Your task to perform on an android device: Open Google Maps and go to "Timeline" Image 0: 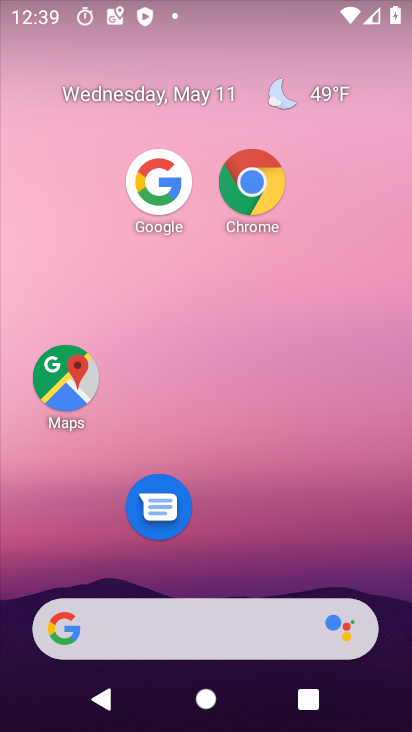
Step 0: click (63, 384)
Your task to perform on an android device: Open Google Maps and go to "Timeline" Image 1: 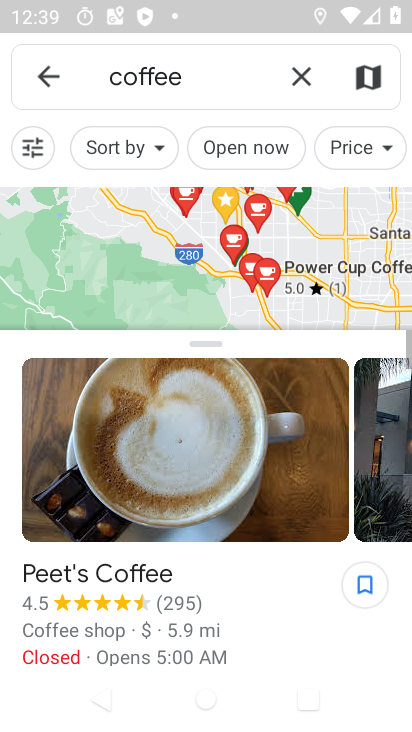
Step 1: press back button
Your task to perform on an android device: Open Google Maps and go to "Timeline" Image 2: 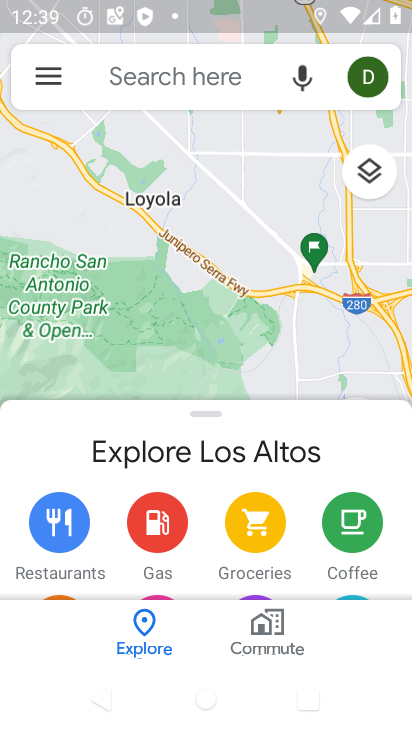
Step 2: click (49, 79)
Your task to perform on an android device: Open Google Maps and go to "Timeline" Image 3: 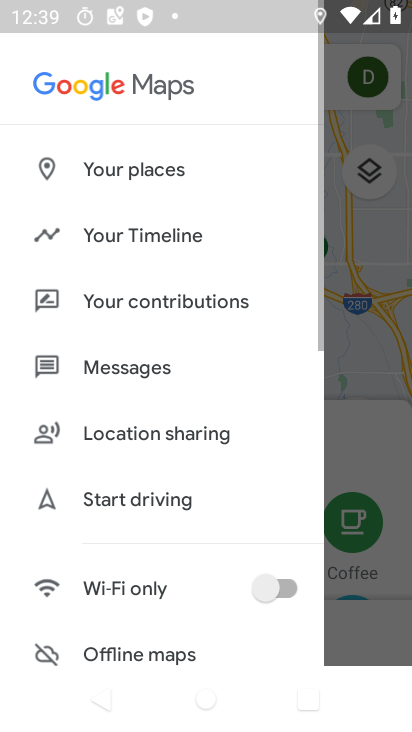
Step 3: click (132, 235)
Your task to perform on an android device: Open Google Maps and go to "Timeline" Image 4: 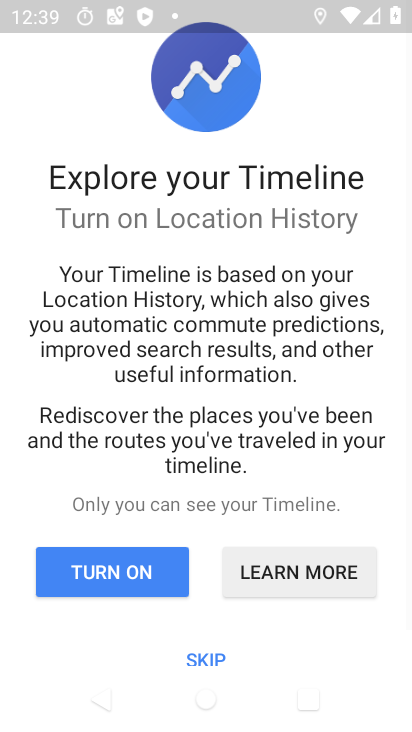
Step 4: click (208, 667)
Your task to perform on an android device: Open Google Maps and go to "Timeline" Image 5: 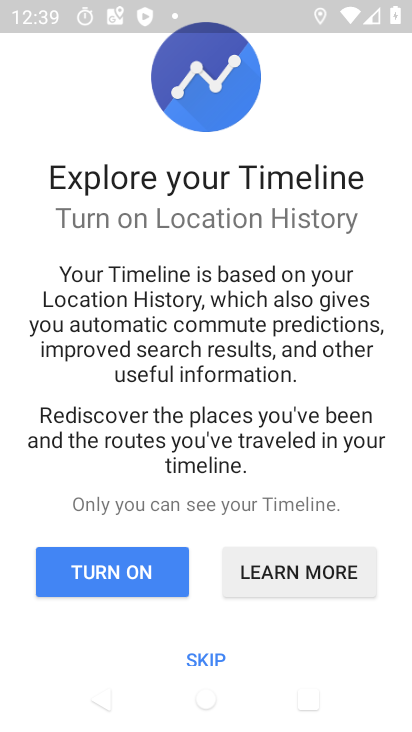
Step 5: click (212, 656)
Your task to perform on an android device: Open Google Maps and go to "Timeline" Image 6: 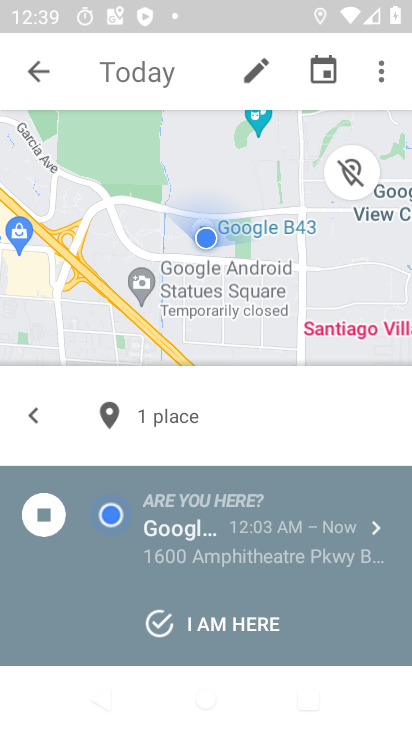
Step 6: task complete